Your task to perform on an android device: remove spam from my inbox in the gmail app Image 0: 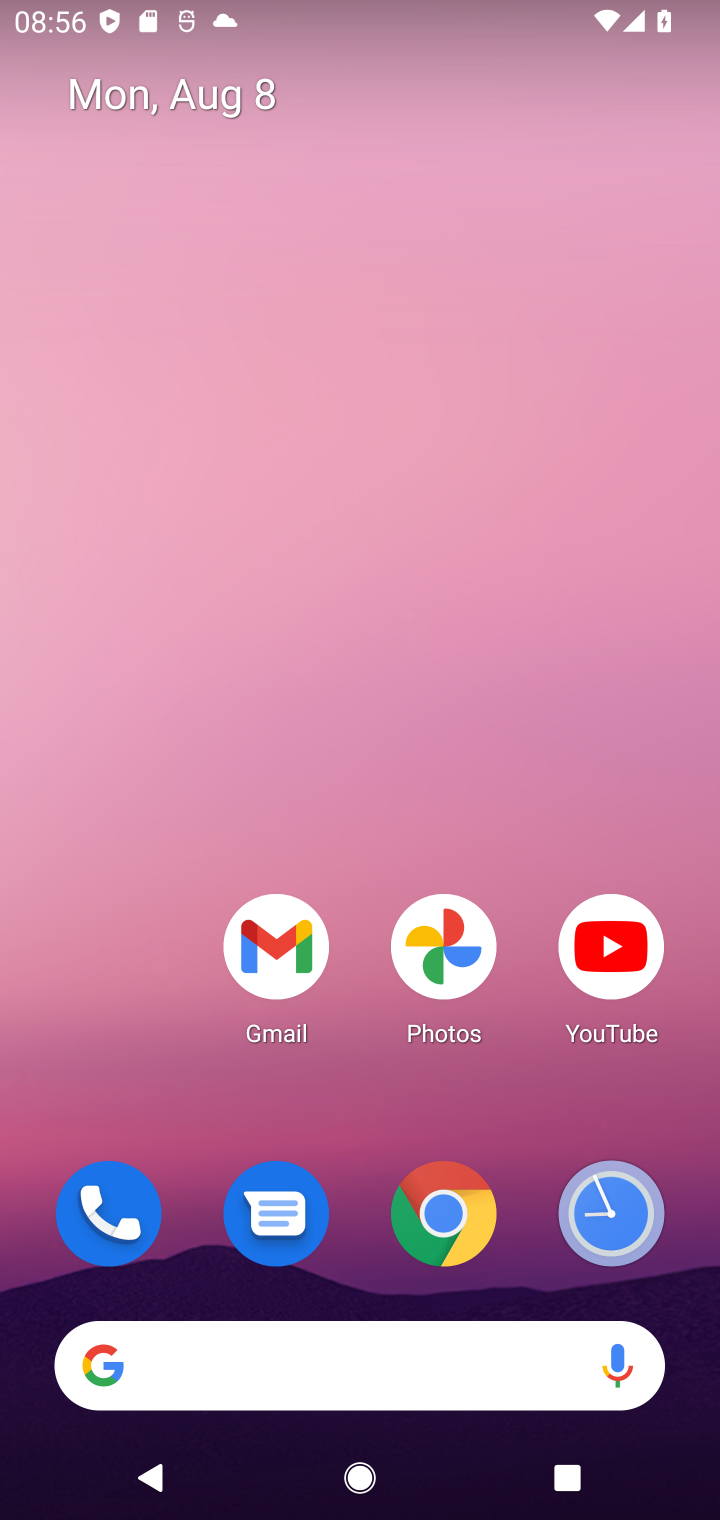
Step 0: drag from (318, 953) to (249, 475)
Your task to perform on an android device: remove spam from my inbox in the gmail app Image 1: 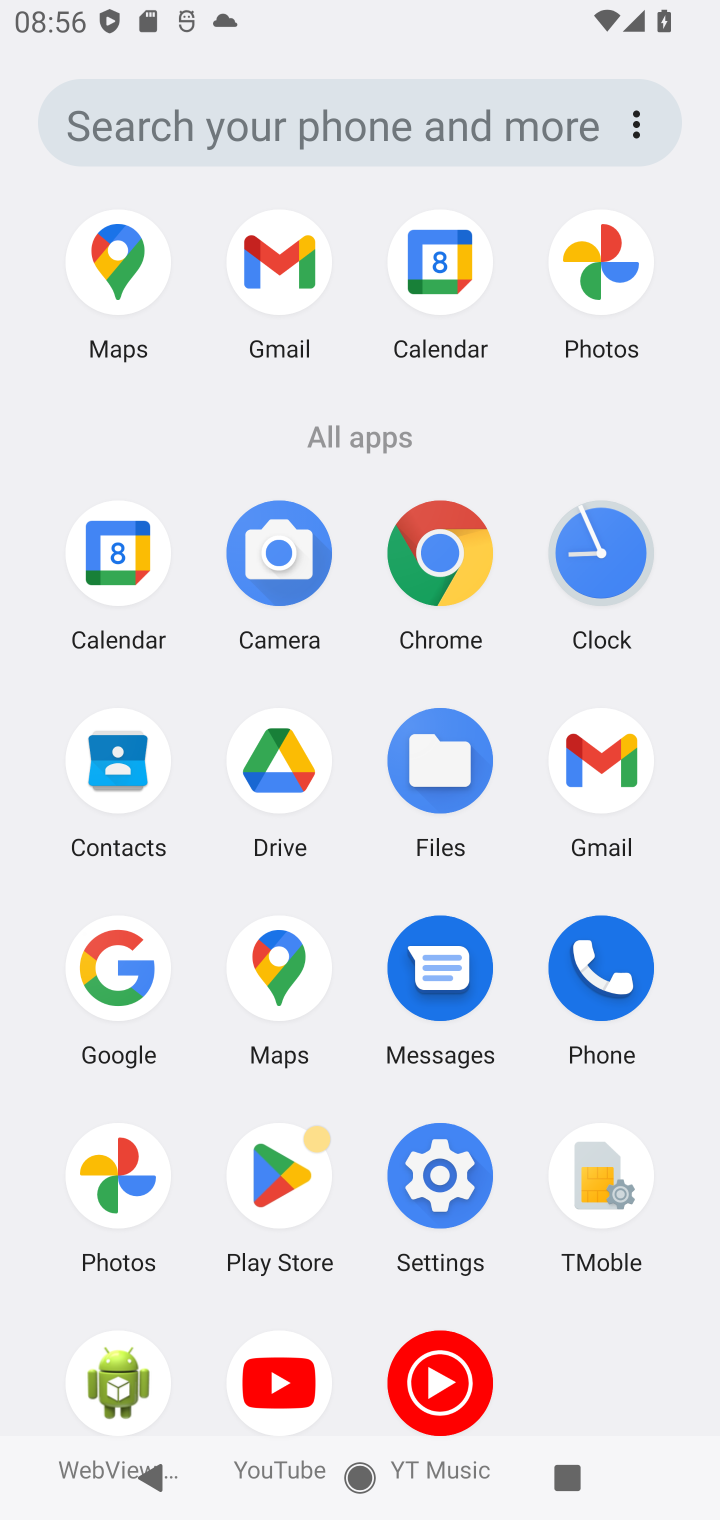
Step 1: click (616, 781)
Your task to perform on an android device: remove spam from my inbox in the gmail app Image 2: 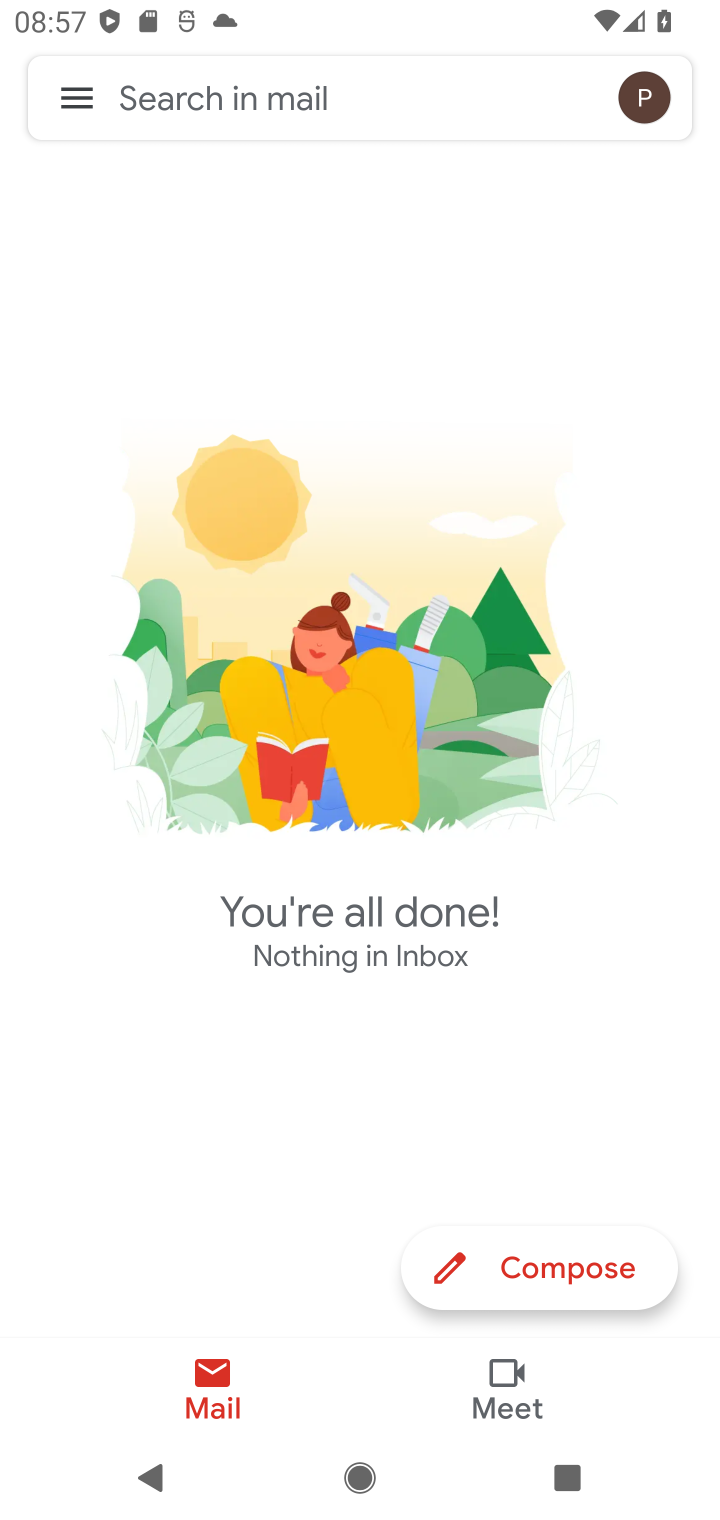
Step 2: click (65, 102)
Your task to perform on an android device: remove spam from my inbox in the gmail app Image 3: 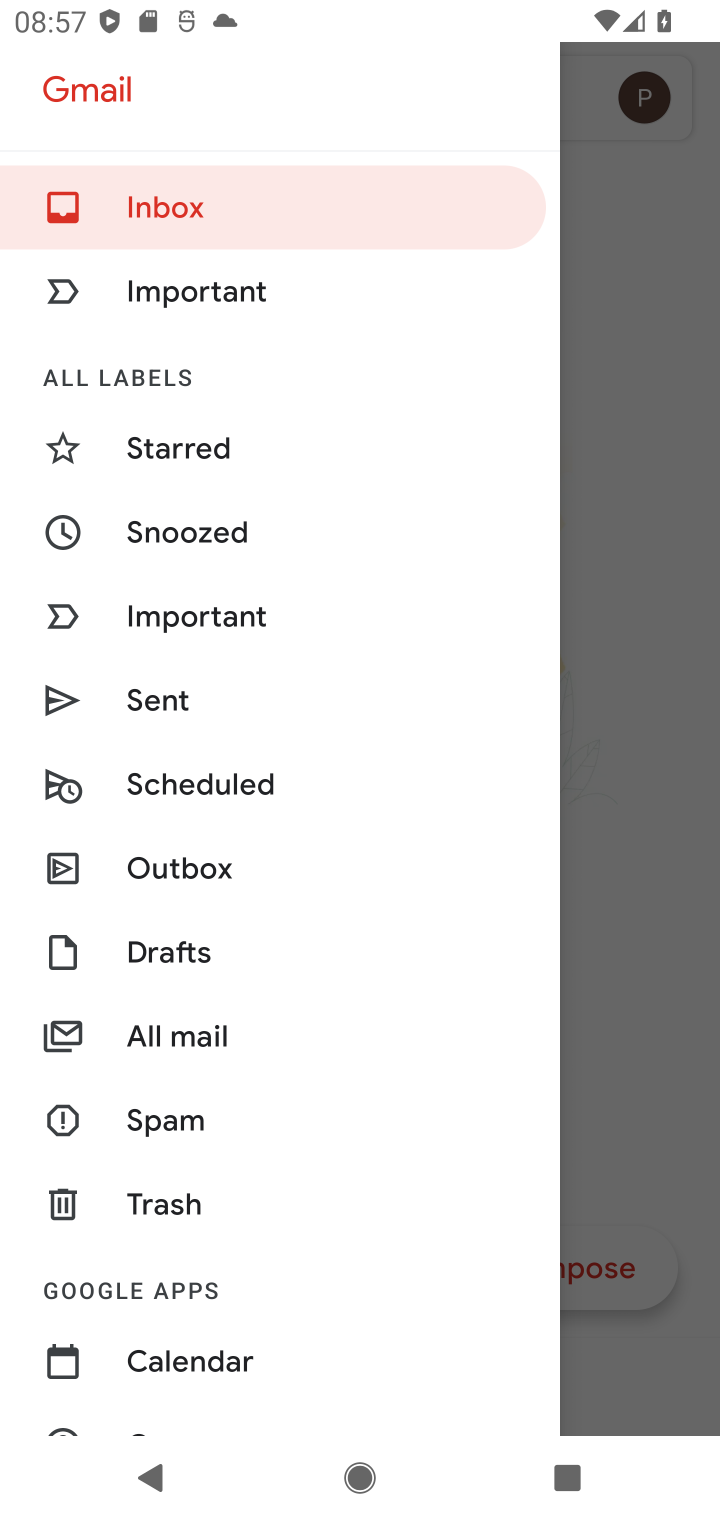
Step 3: click (179, 1123)
Your task to perform on an android device: remove spam from my inbox in the gmail app Image 4: 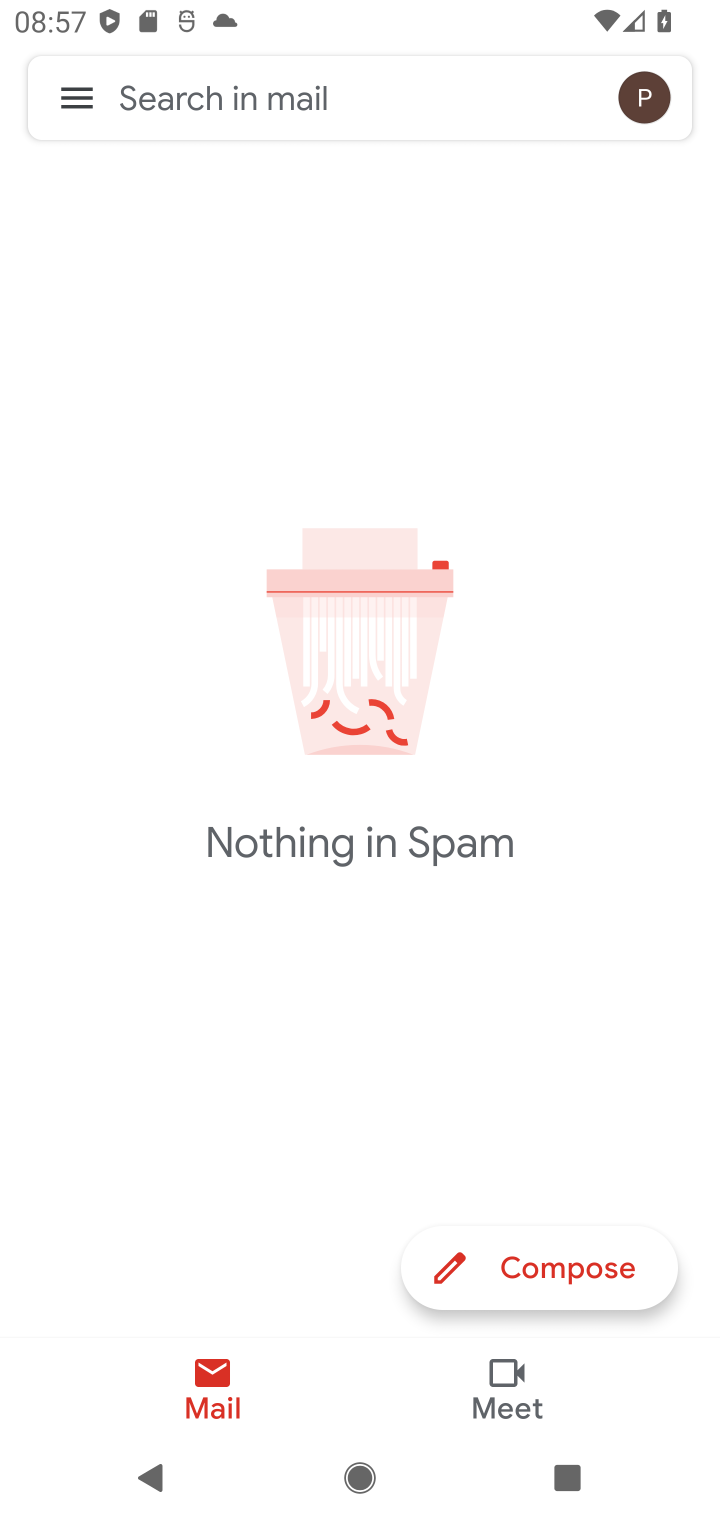
Step 4: task complete